Your task to perform on an android device: visit the assistant section in the google photos Image 0: 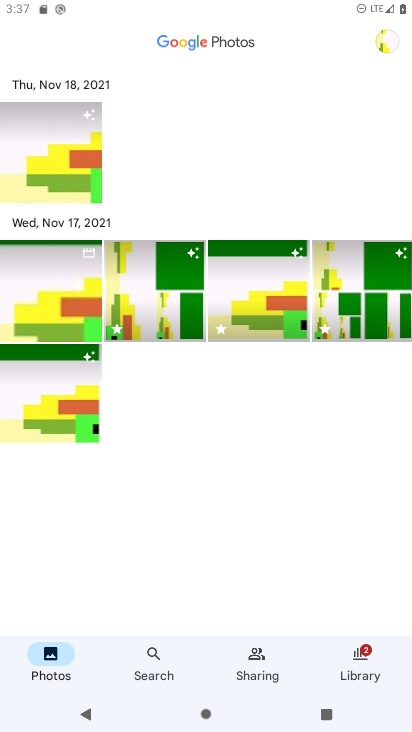
Step 0: click (353, 659)
Your task to perform on an android device: visit the assistant section in the google photos Image 1: 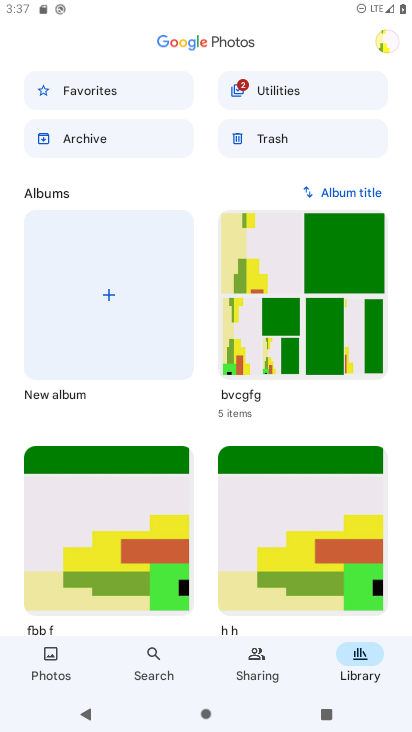
Step 1: task complete